Your task to perform on an android device: open app "Move to iOS" (install if not already installed), go to login, and select forgot password Image 0: 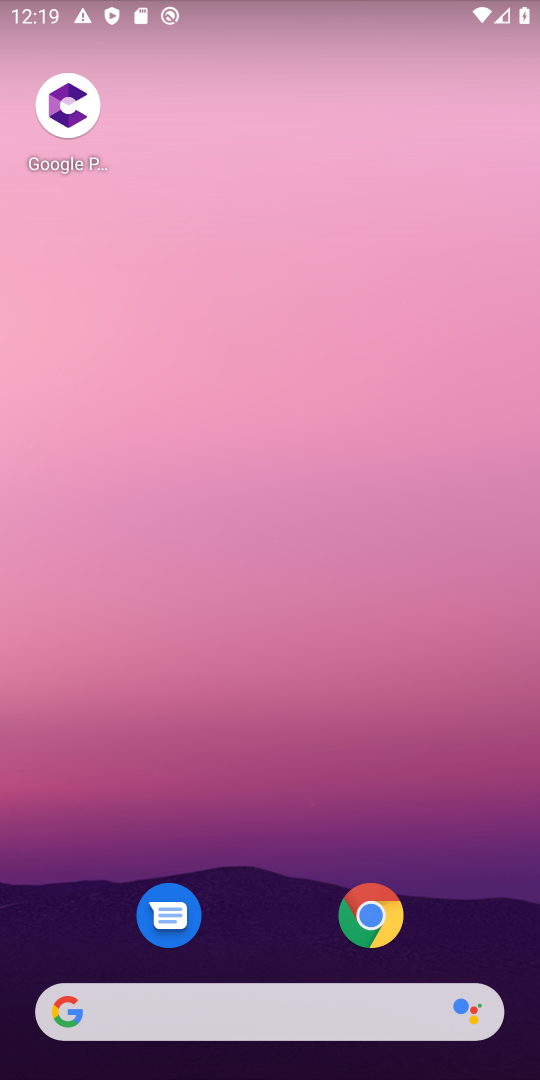
Step 0: drag from (300, 916) to (524, 735)
Your task to perform on an android device: open app "Move to iOS" (install if not already installed), go to login, and select forgot password Image 1: 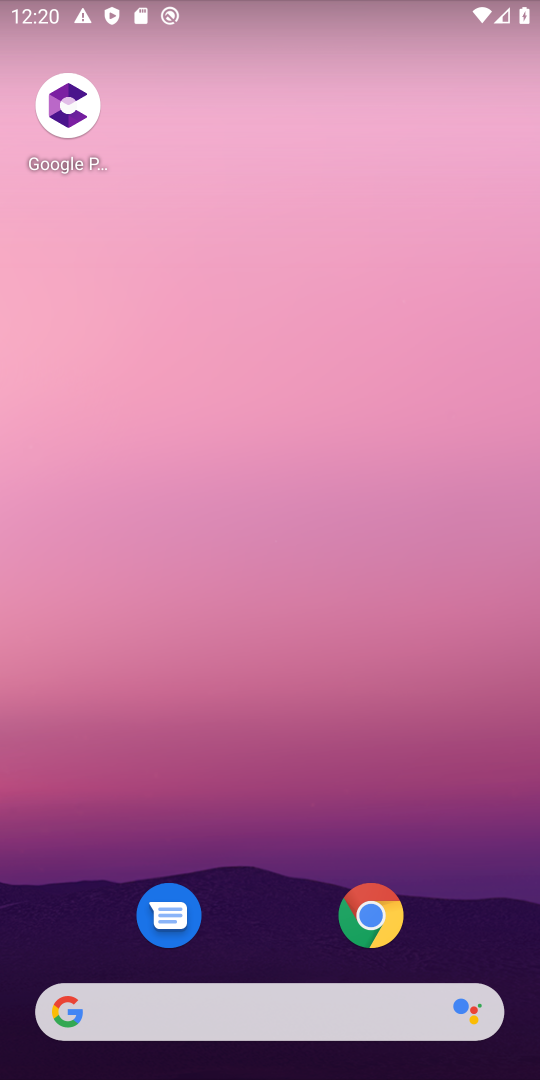
Step 1: drag from (294, 972) to (235, 40)
Your task to perform on an android device: open app "Move to iOS" (install if not already installed), go to login, and select forgot password Image 2: 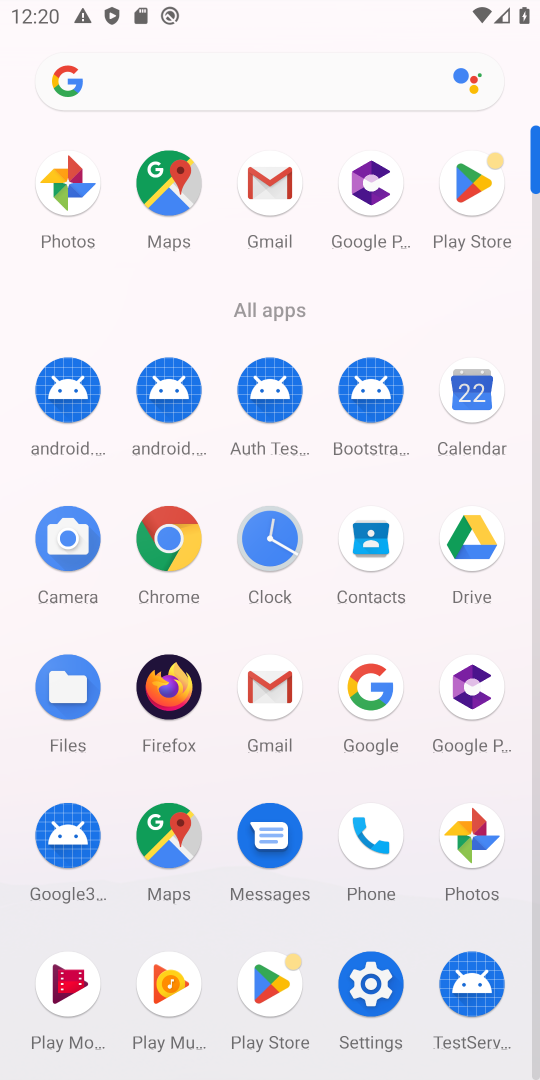
Step 2: click (281, 1006)
Your task to perform on an android device: open app "Move to iOS" (install if not already installed), go to login, and select forgot password Image 3: 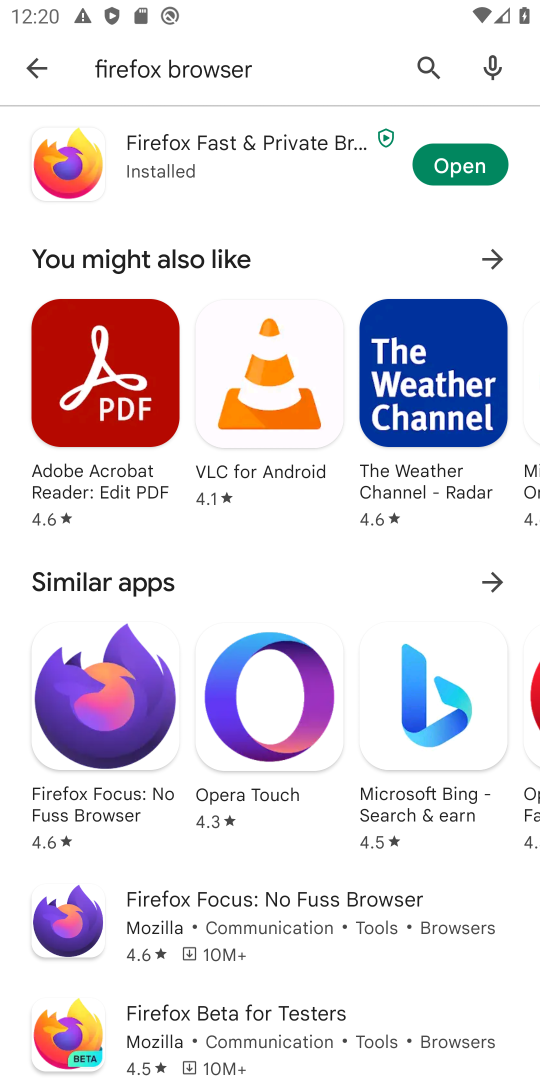
Step 3: click (33, 56)
Your task to perform on an android device: open app "Move to iOS" (install if not already installed), go to login, and select forgot password Image 4: 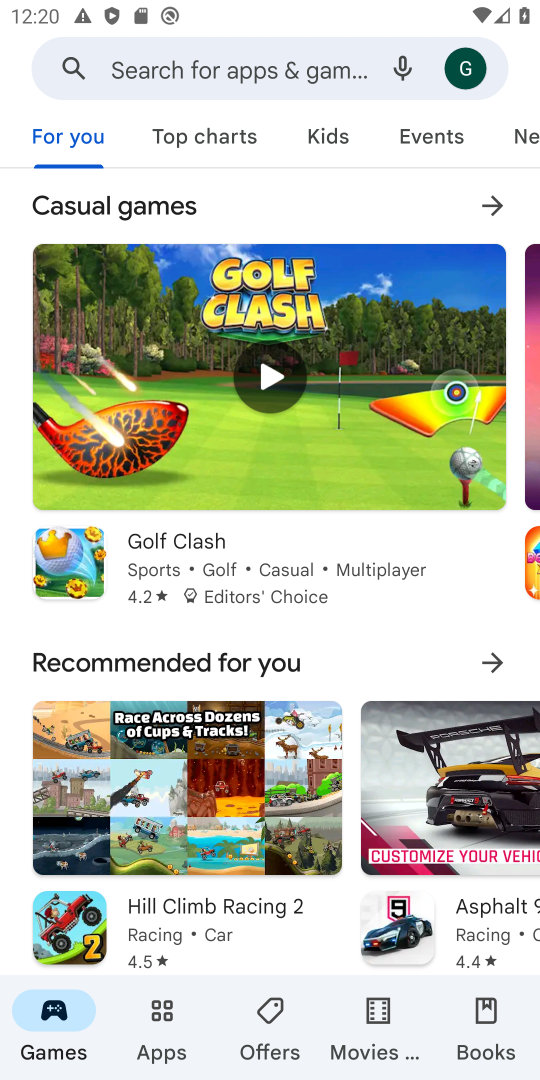
Step 4: click (263, 57)
Your task to perform on an android device: open app "Move to iOS" (install if not already installed), go to login, and select forgot password Image 5: 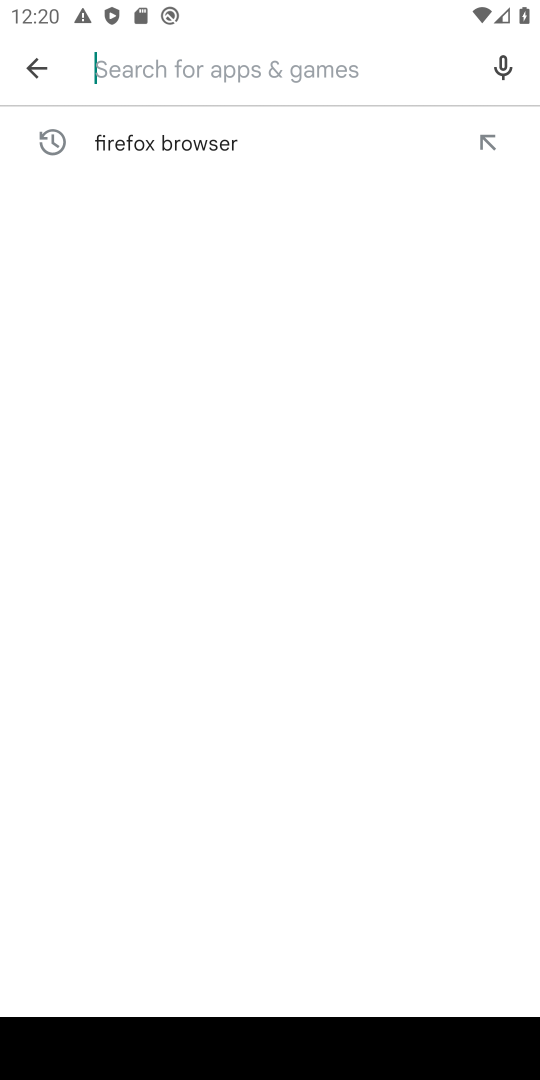
Step 5: type "Move to iOS"
Your task to perform on an android device: open app "Move to iOS" (install if not already installed), go to login, and select forgot password Image 6: 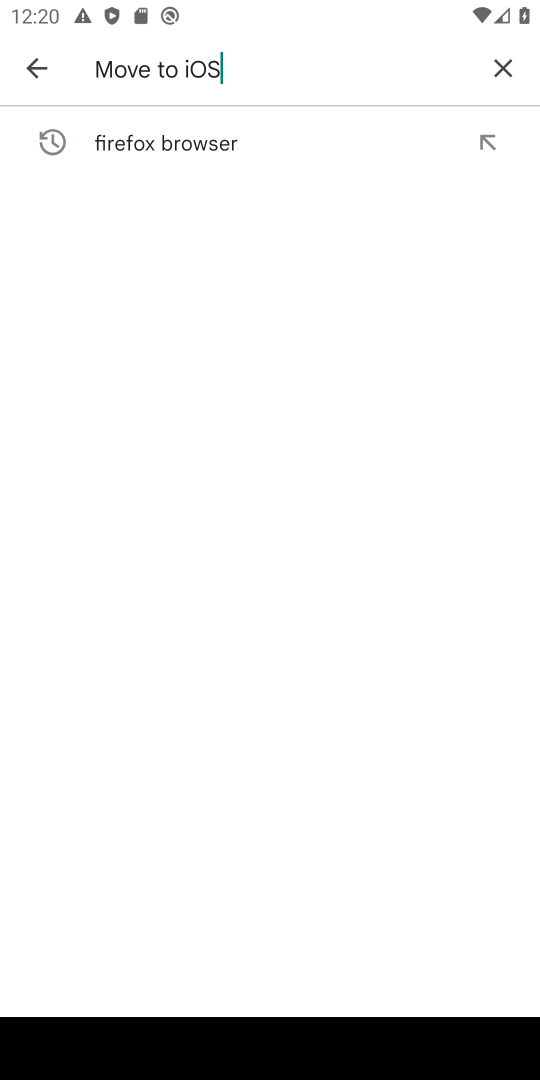
Step 6: type ""
Your task to perform on an android device: open app "Move to iOS" (install if not already installed), go to login, and select forgot password Image 7: 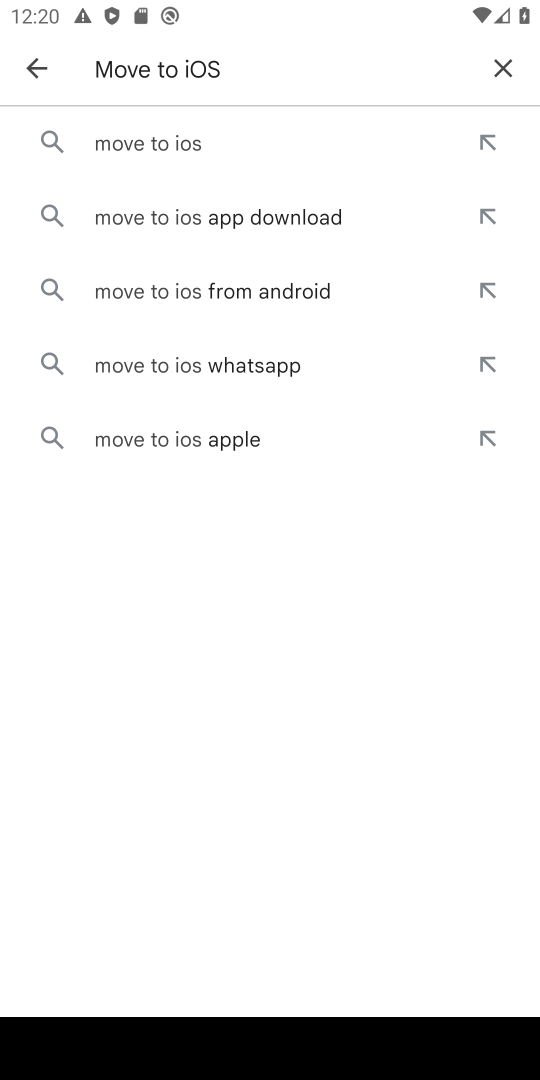
Step 7: click (126, 149)
Your task to perform on an android device: open app "Move to iOS" (install if not already installed), go to login, and select forgot password Image 8: 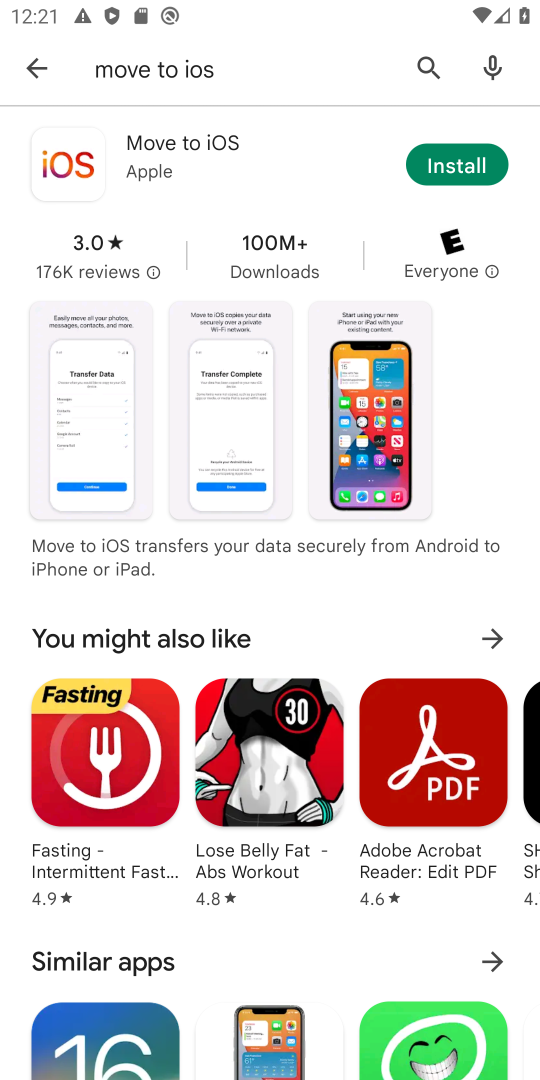
Step 8: click (471, 139)
Your task to perform on an android device: open app "Move to iOS" (install if not already installed), go to login, and select forgot password Image 9: 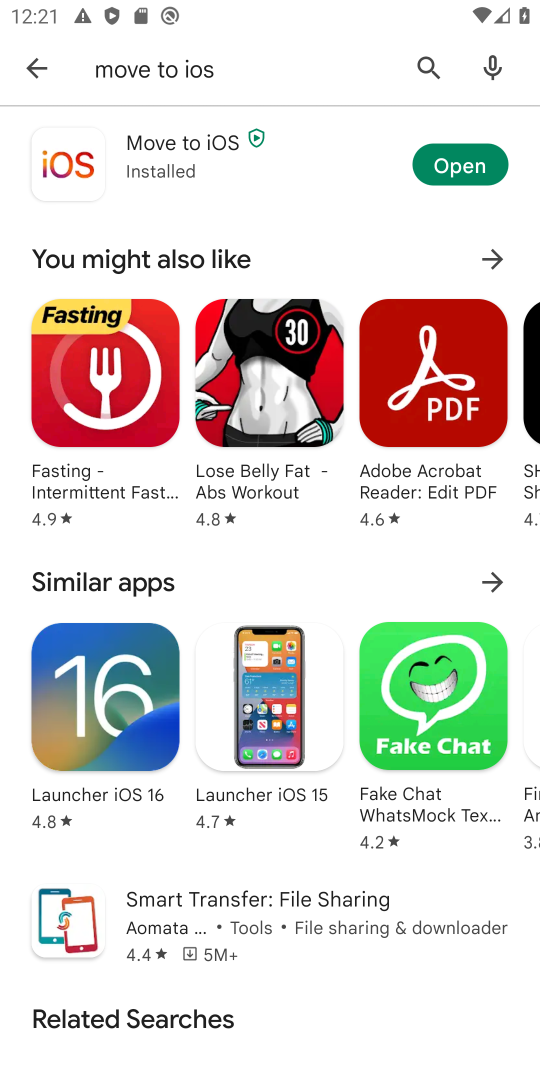
Step 9: click (472, 156)
Your task to perform on an android device: open app "Move to iOS" (install if not already installed), go to login, and select forgot password Image 10: 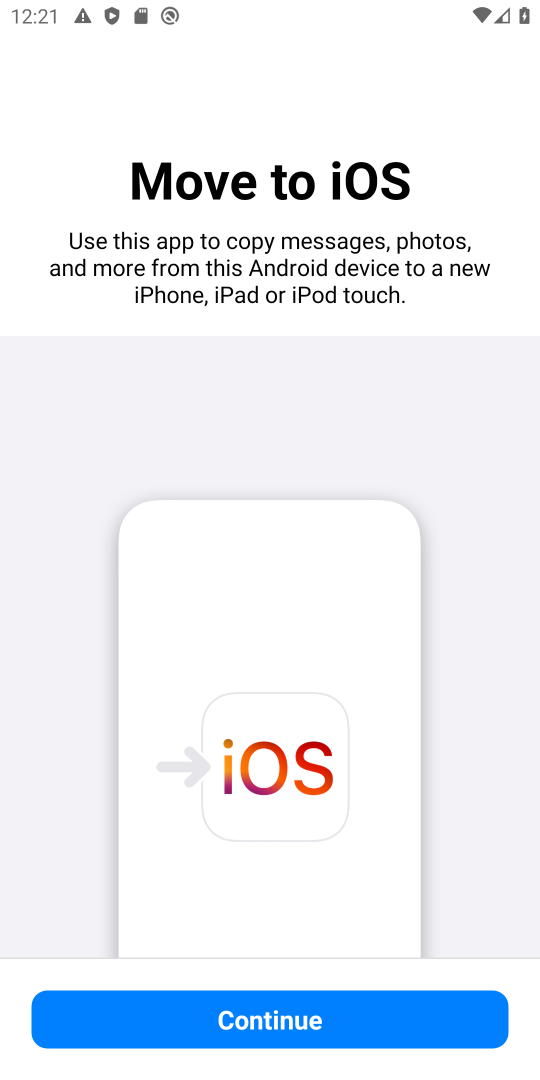
Step 10: click (278, 1017)
Your task to perform on an android device: open app "Move to iOS" (install if not already installed), go to login, and select forgot password Image 11: 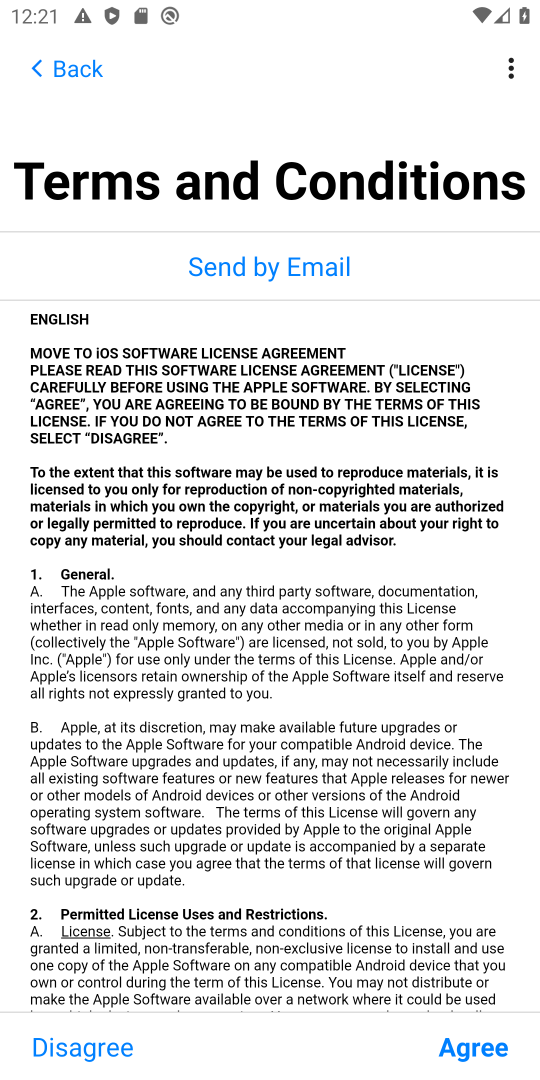
Step 11: click (54, 63)
Your task to perform on an android device: open app "Move to iOS" (install if not already installed), go to login, and select forgot password Image 12: 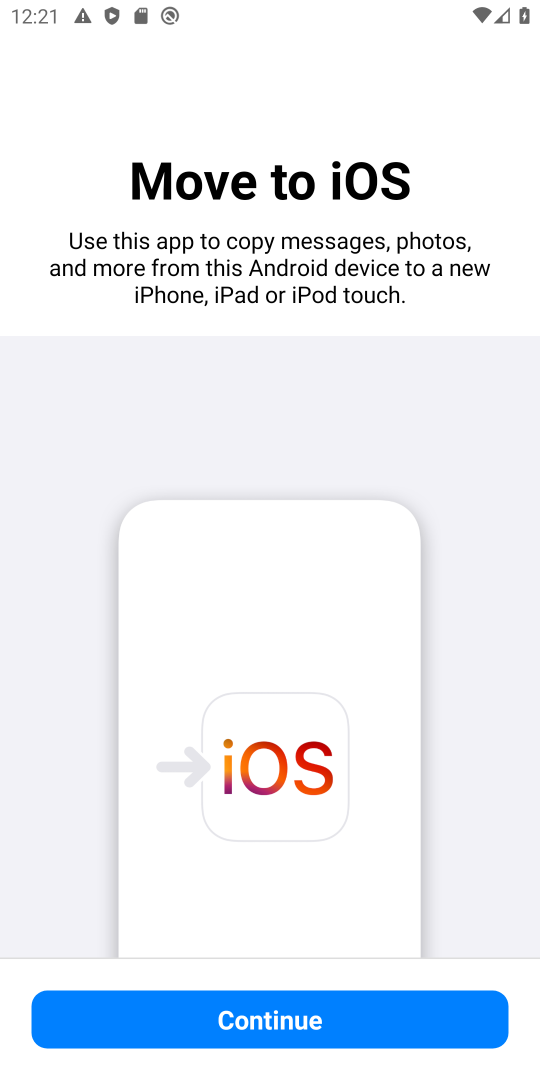
Step 12: click (310, 1036)
Your task to perform on an android device: open app "Move to iOS" (install if not already installed), go to login, and select forgot password Image 13: 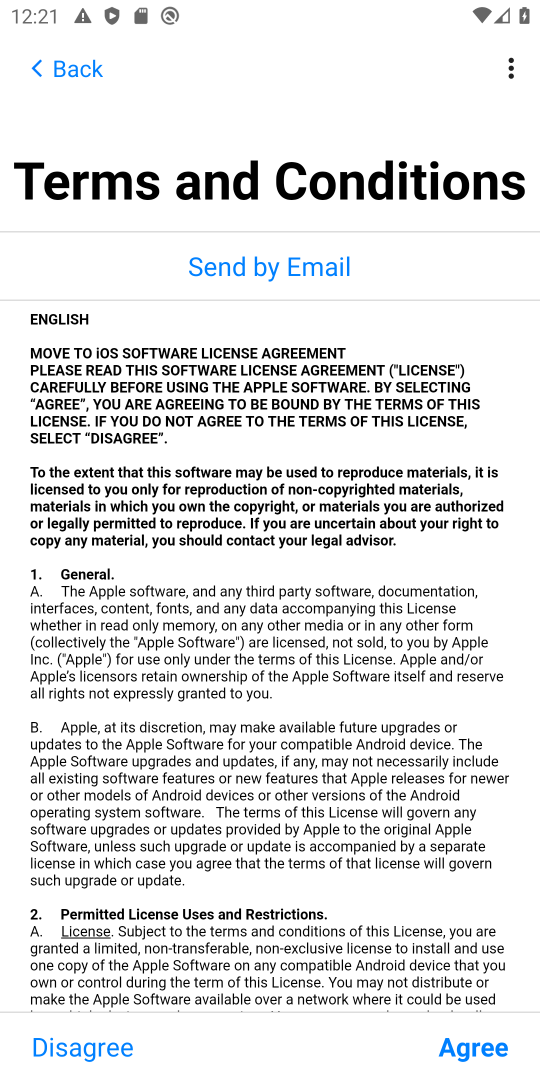
Step 13: click (500, 1043)
Your task to perform on an android device: open app "Move to iOS" (install if not already installed), go to login, and select forgot password Image 14: 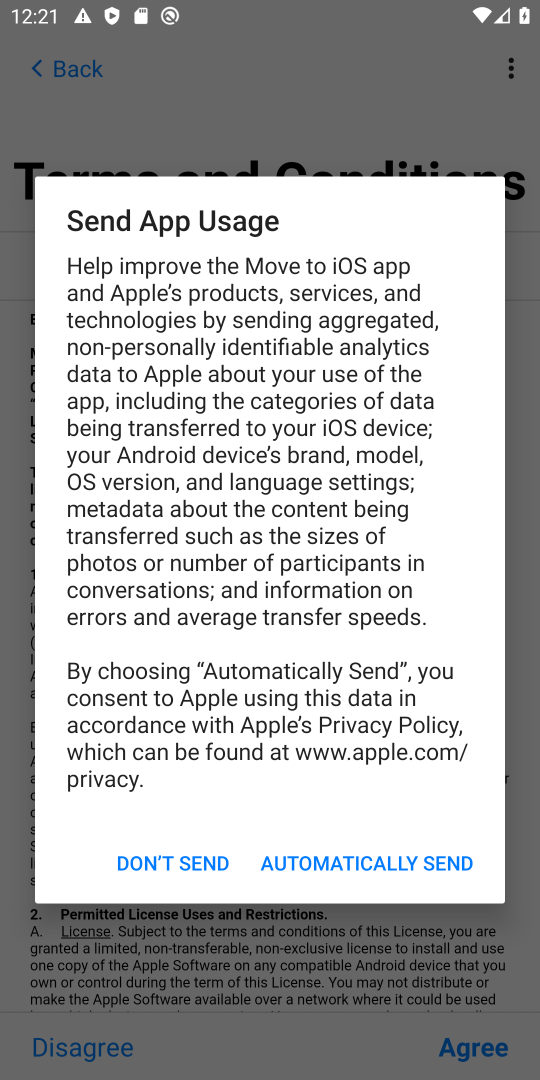
Step 14: click (406, 868)
Your task to perform on an android device: open app "Move to iOS" (install if not already installed), go to login, and select forgot password Image 15: 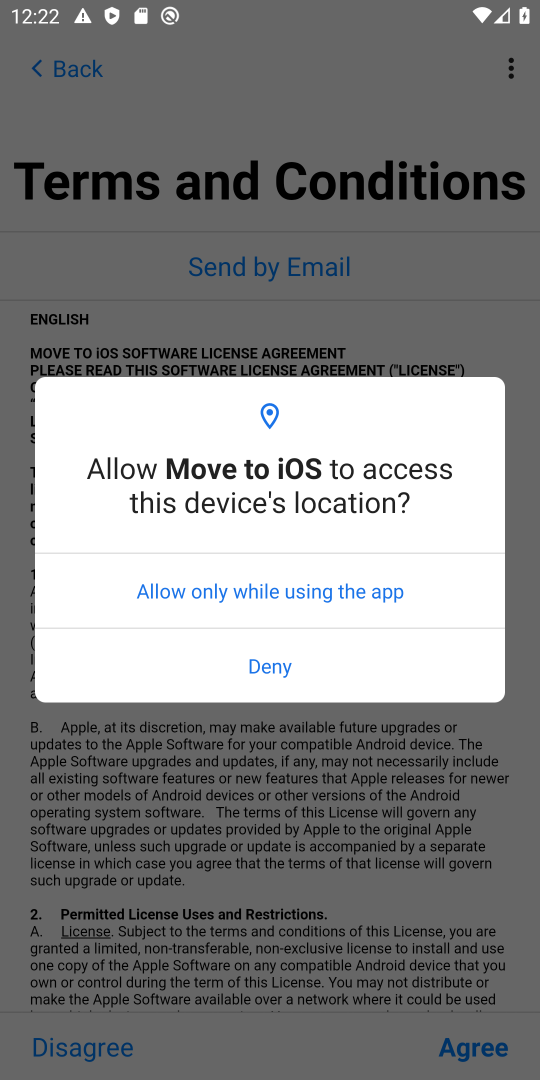
Step 15: click (228, 600)
Your task to perform on an android device: open app "Move to iOS" (install if not already installed), go to login, and select forgot password Image 16: 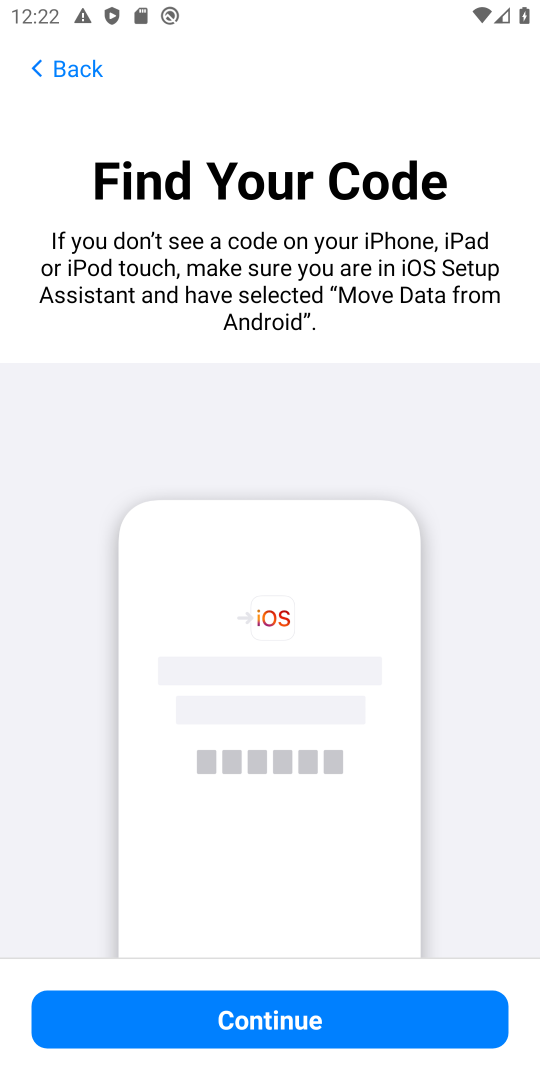
Step 16: click (371, 1032)
Your task to perform on an android device: open app "Move to iOS" (install if not already installed), go to login, and select forgot password Image 17: 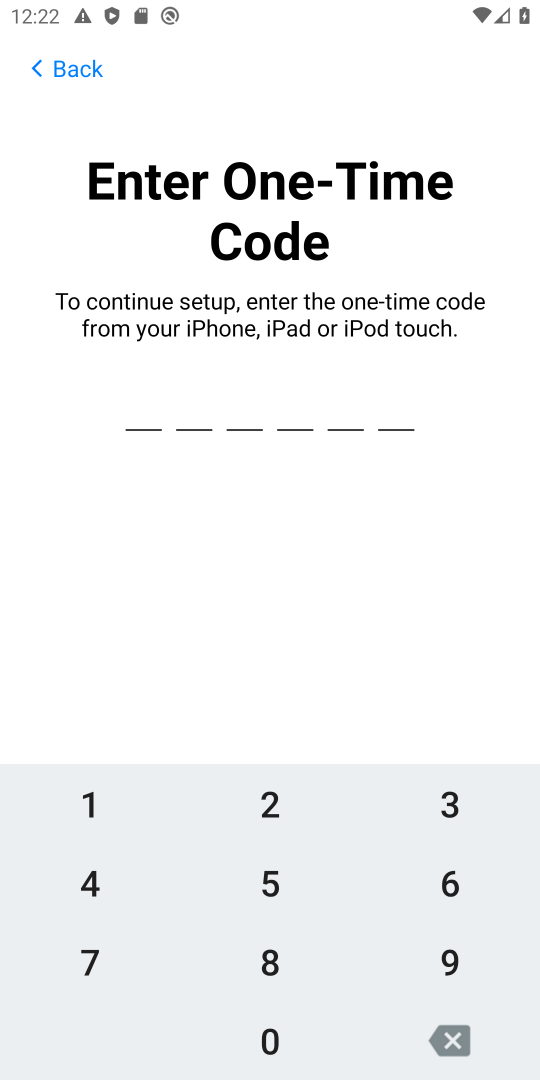
Step 17: task complete